Your task to perform on an android device: search for starred emails in the gmail app Image 0: 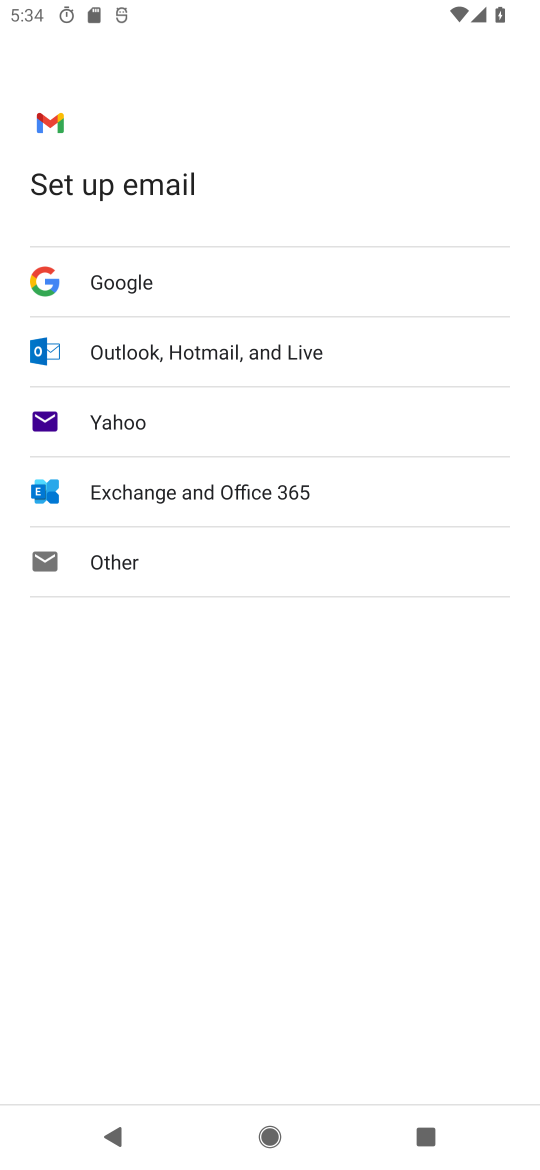
Step 0: press home button
Your task to perform on an android device: search for starred emails in the gmail app Image 1: 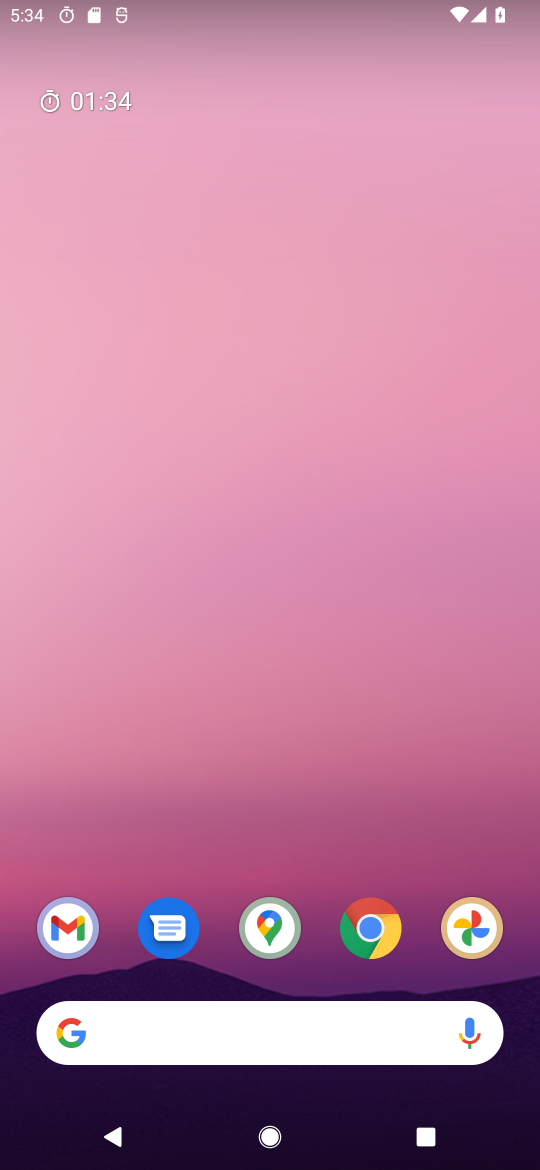
Step 1: click (60, 933)
Your task to perform on an android device: search for starred emails in the gmail app Image 2: 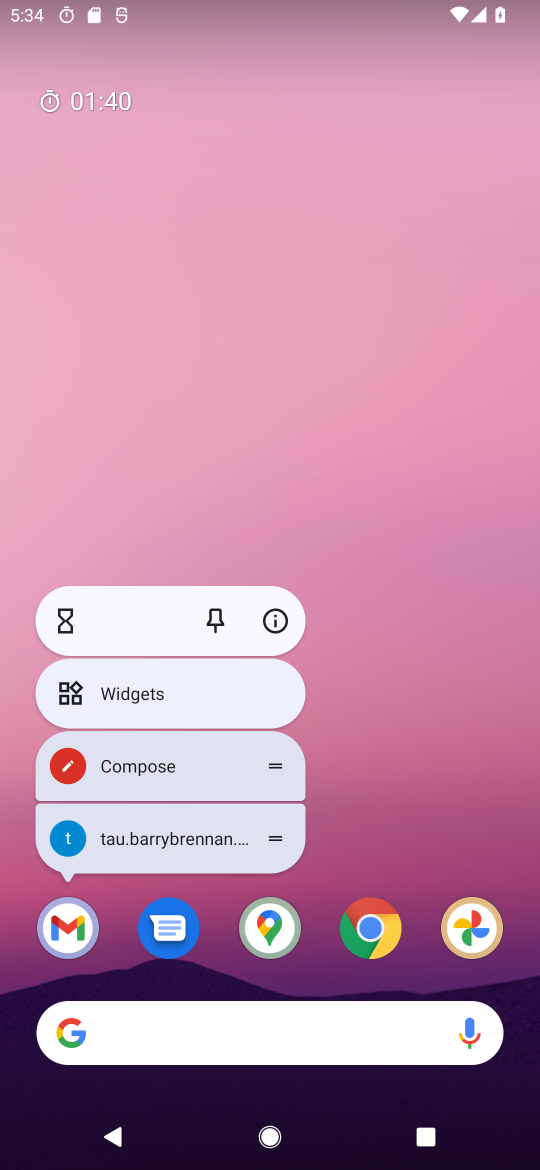
Step 2: click (66, 914)
Your task to perform on an android device: search for starred emails in the gmail app Image 3: 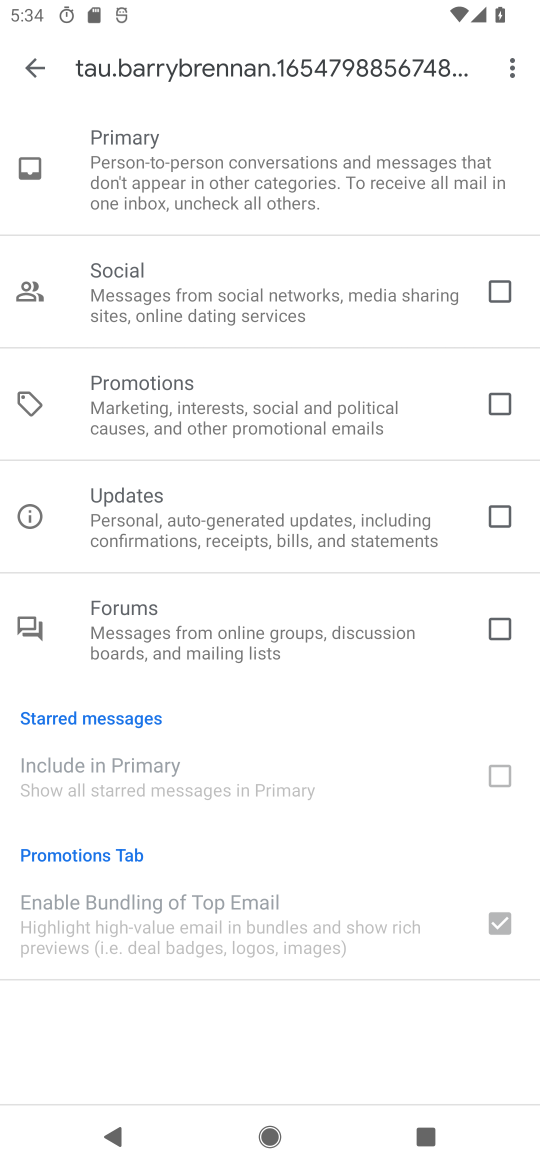
Step 3: click (20, 68)
Your task to perform on an android device: search for starred emails in the gmail app Image 4: 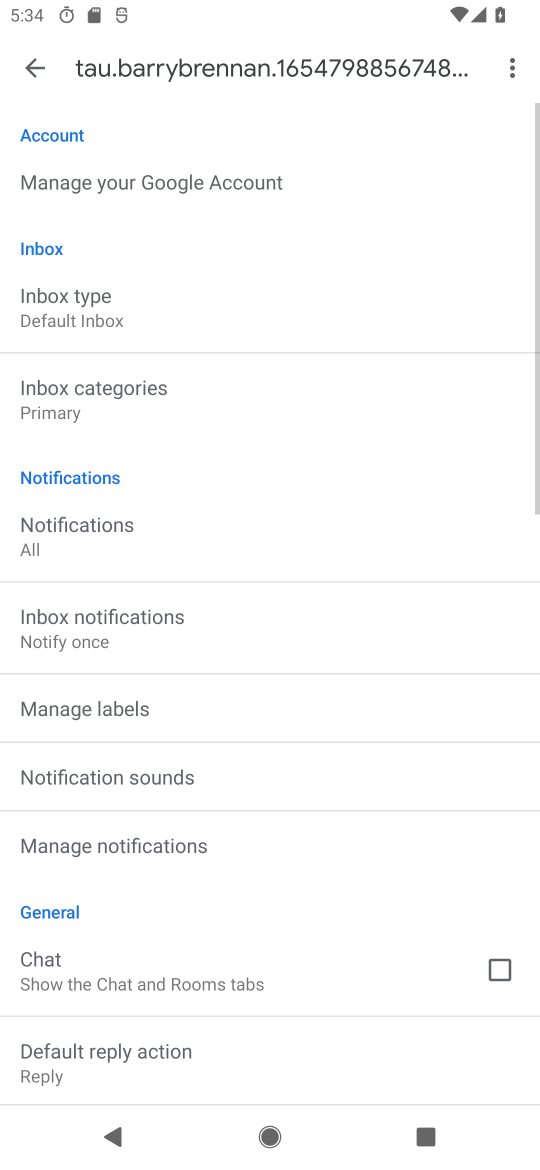
Step 4: click (41, 70)
Your task to perform on an android device: search for starred emails in the gmail app Image 5: 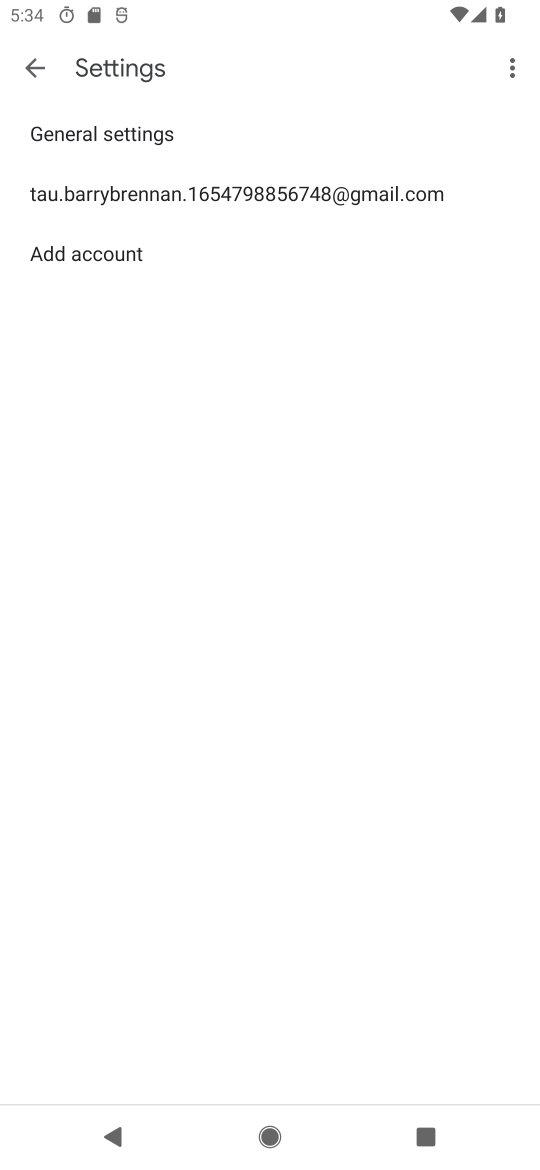
Step 5: click (30, 72)
Your task to perform on an android device: search for starred emails in the gmail app Image 6: 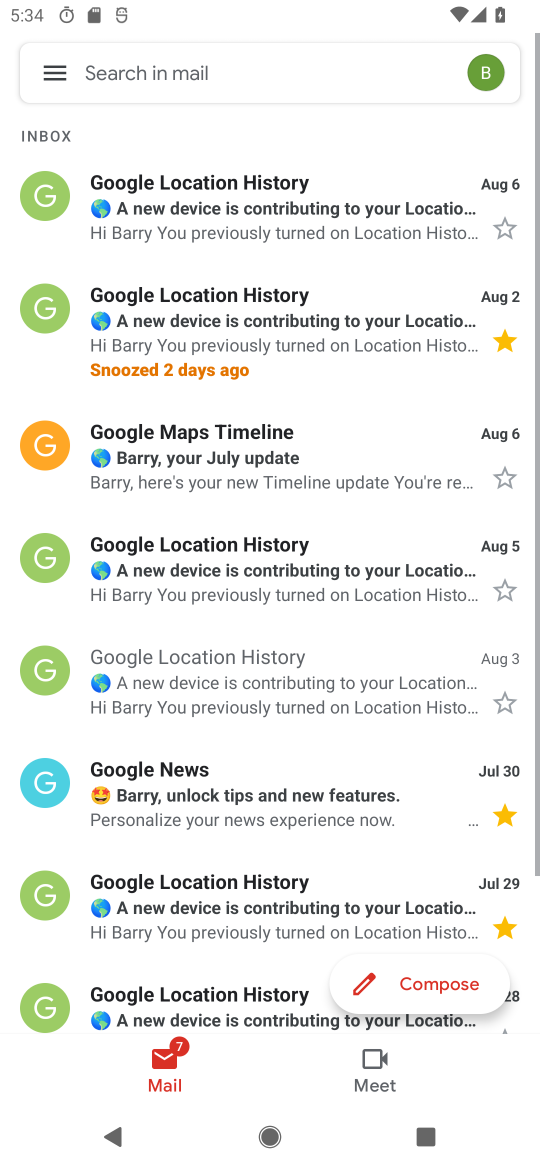
Step 6: click (36, 64)
Your task to perform on an android device: search for starred emails in the gmail app Image 7: 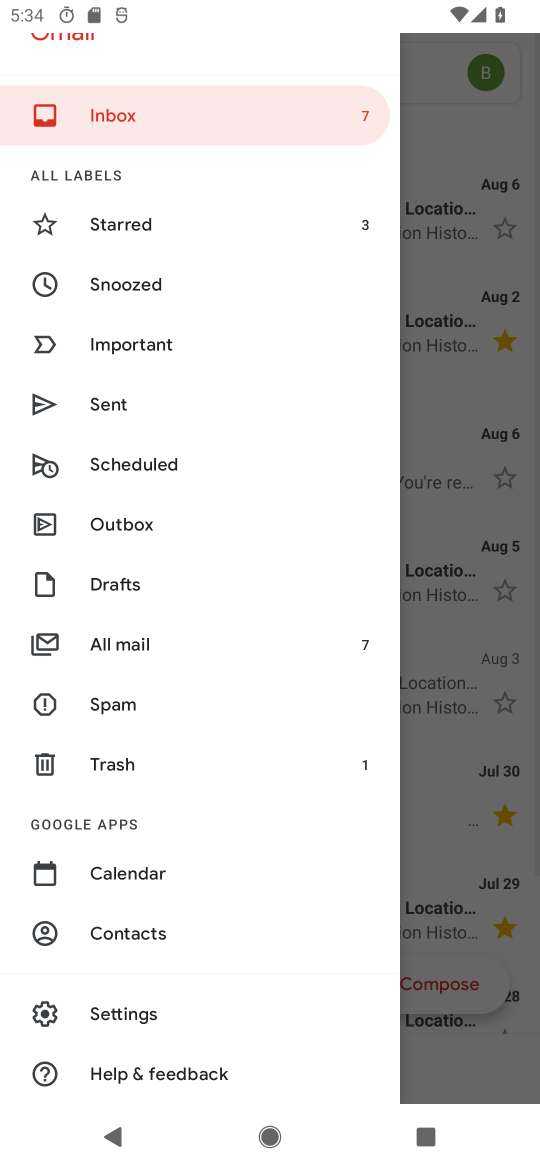
Step 7: click (130, 219)
Your task to perform on an android device: search for starred emails in the gmail app Image 8: 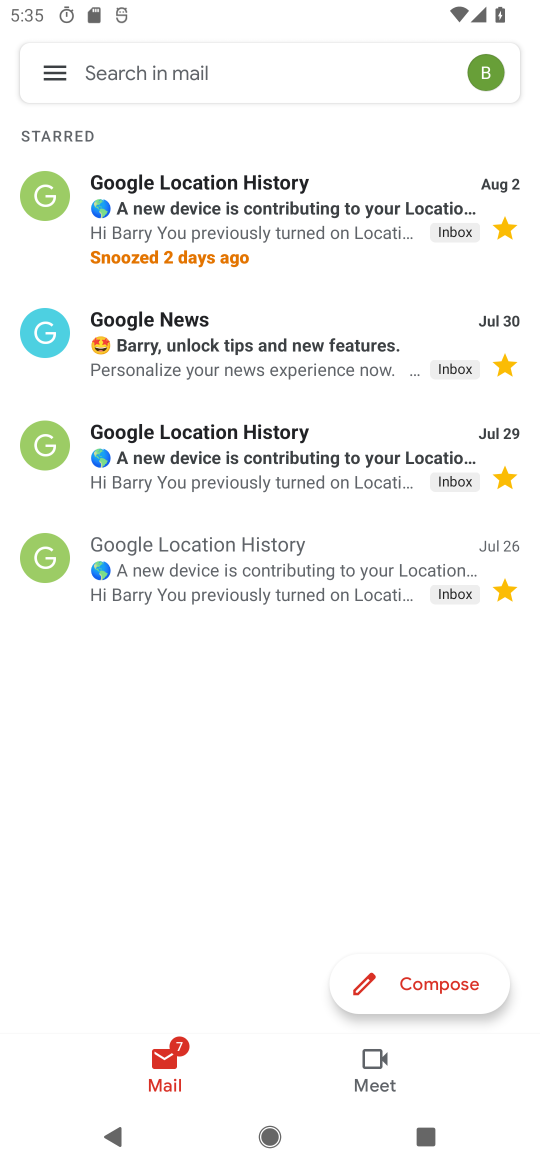
Step 8: task complete